Your task to perform on an android device: Open Chrome and go to the settings page Image 0: 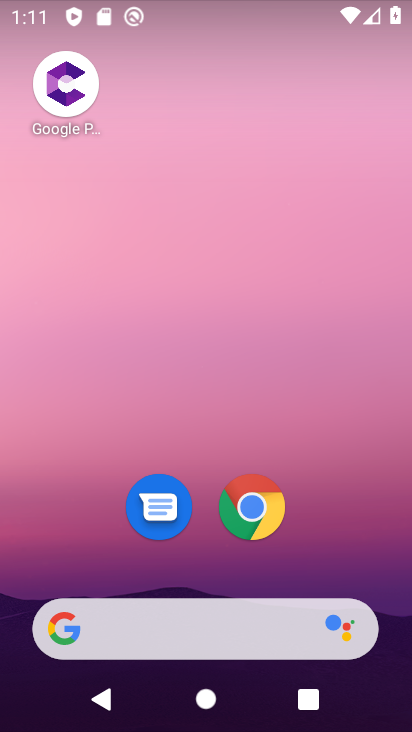
Step 0: click (256, 509)
Your task to perform on an android device: Open Chrome and go to the settings page Image 1: 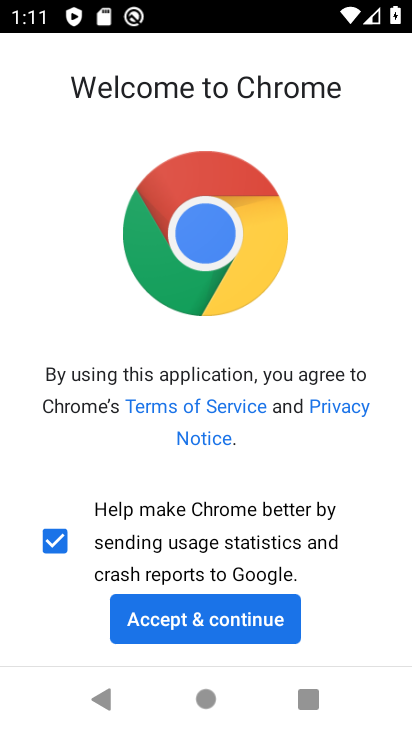
Step 1: click (242, 625)
Your task to perform on an android device: Open Chrome and go to the settings page Image 2: 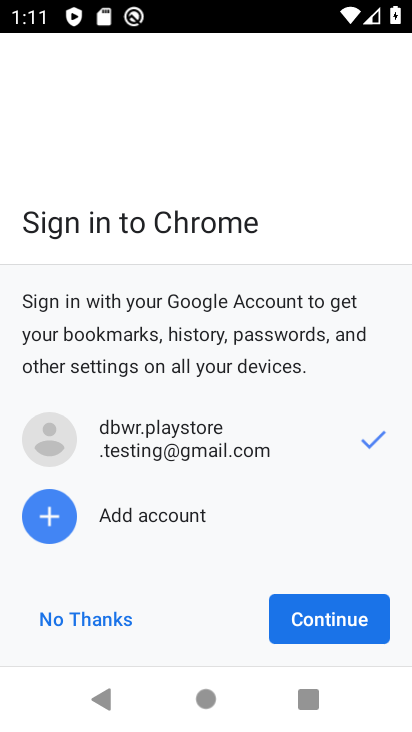
Step 2: click (342, 613)
Your task to perform on an android device: Open Chrome and go to the settings page Image 3: 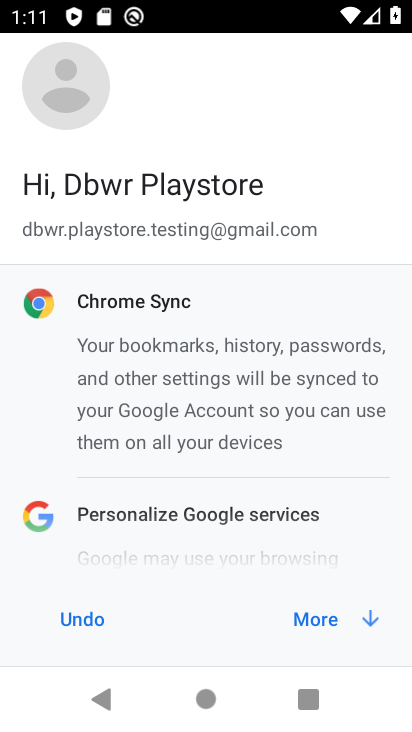
Step 3: click (342, 613)
Your task to perform on an android device: Open Chrome and go to the settings page Image 4: 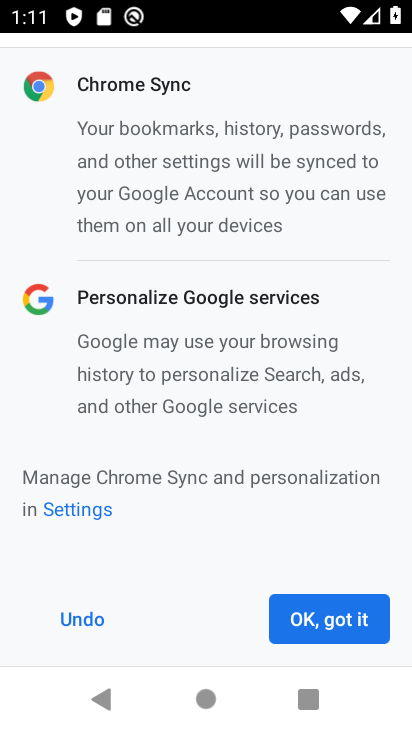
Step 4: click (342, 613)
Your task to perform on an android device: Open Chrome and go to the settings page Image 5: 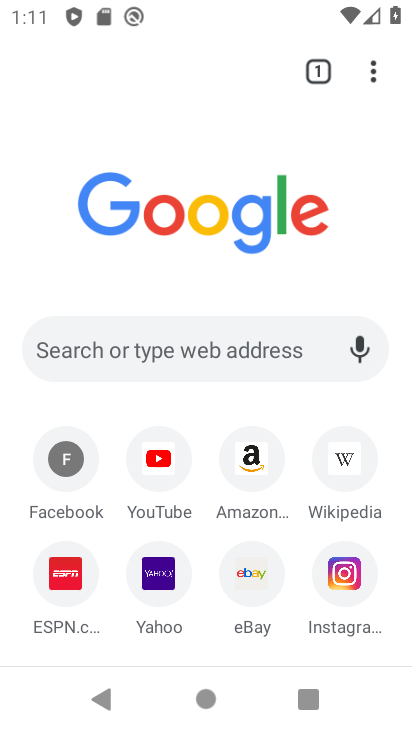
Step 5: click (378, 73)
Your task to perform on an android device: Open Chrome and go to the settings page Image 6: 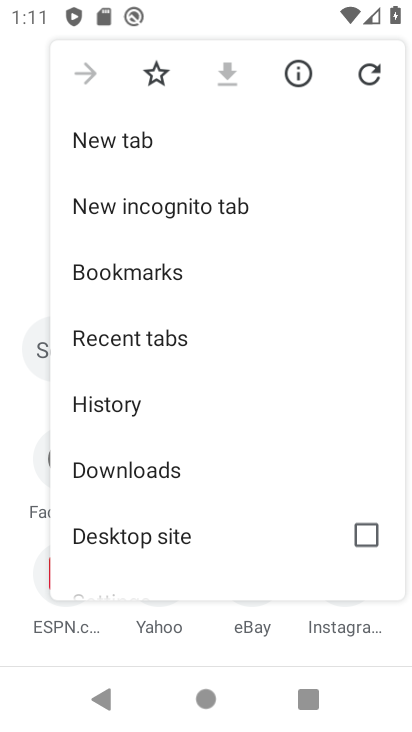
Step 6: drag from (231, 518) to (156, 81)
Your task to perform on an android device: Open Chrome and go to the settings page Image 7: 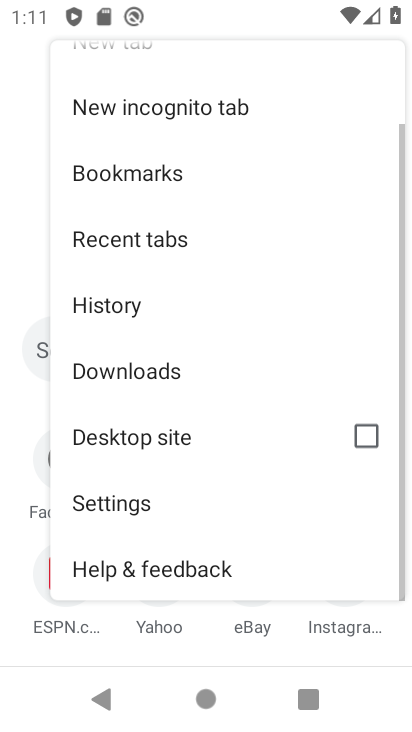
Step 7: click (156, 501)
Your task to perform on an android device: Open Chrome and go to the settings page Image 8: 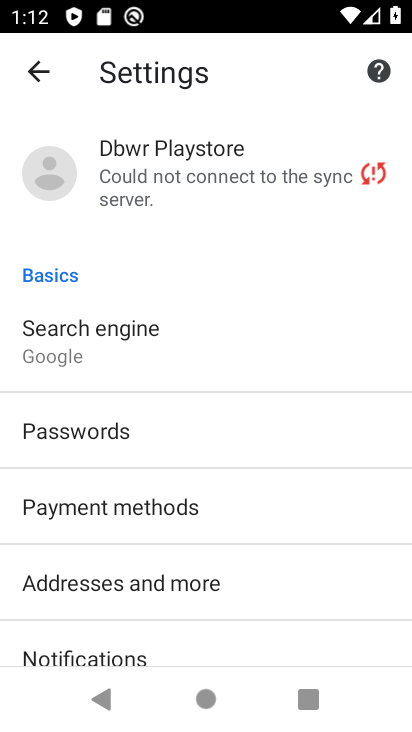
Step 8: task complete